Your task to perform on an android device: Open privacy settings Image 0: 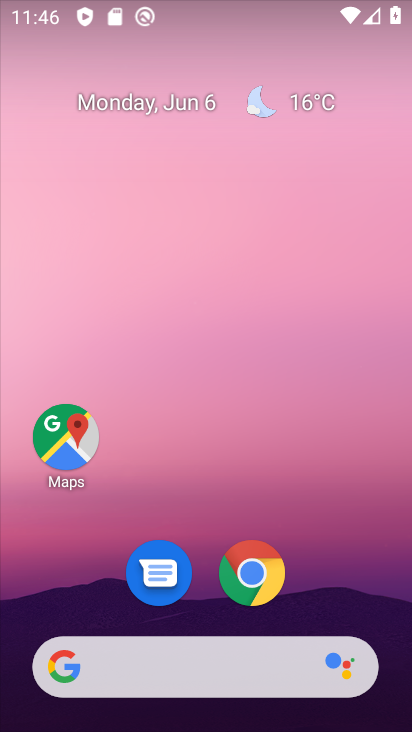
Step 0: drag from (362, 572) to (280, 76)
Your task to perform on an android device: Open privacy settings Image 1: 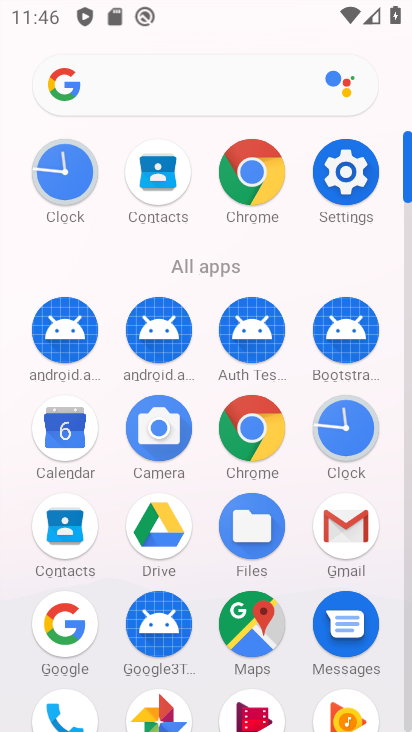
Step 1: click (347, 172)
Your task to perform on an android device: Open privacy settings Image 2: 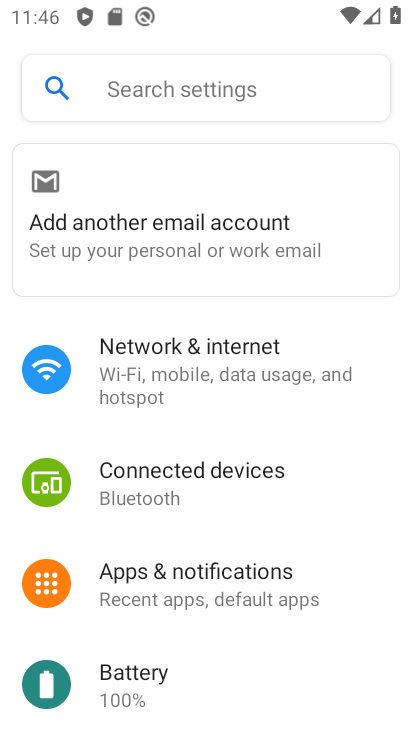
Step 2: drag from (311, 589) to (334, 261)
Your task to perform on an android device: Open privacy settings Image 3: 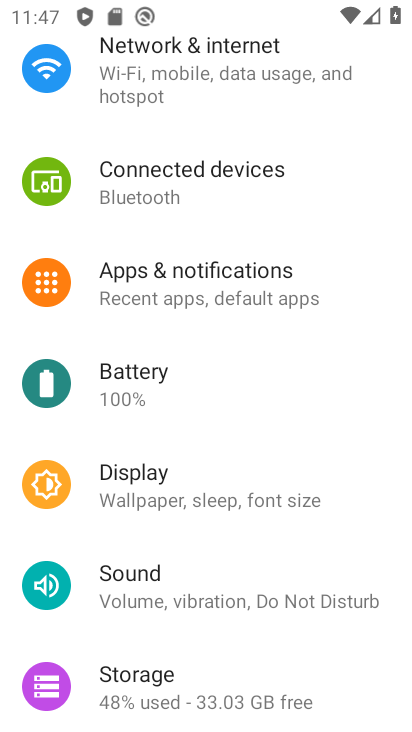
Step 3: drag from (202, 584) to (164, 333)
Your task to perform on an android device: Open privacy settings Image 4: 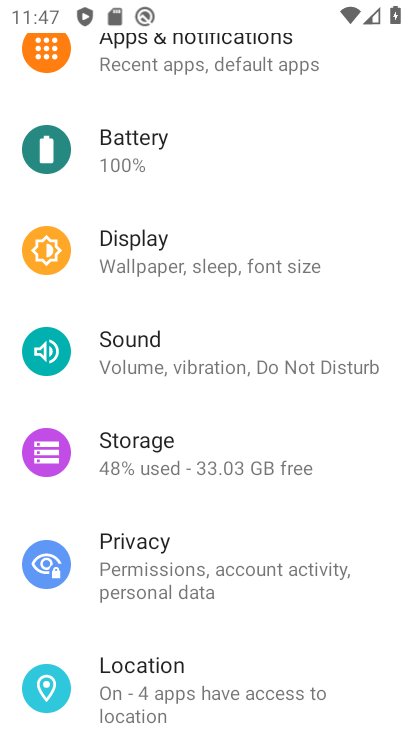
Step 4: click (195, 577)
Your task to perform on an android device: Open privacy settings Image 5: 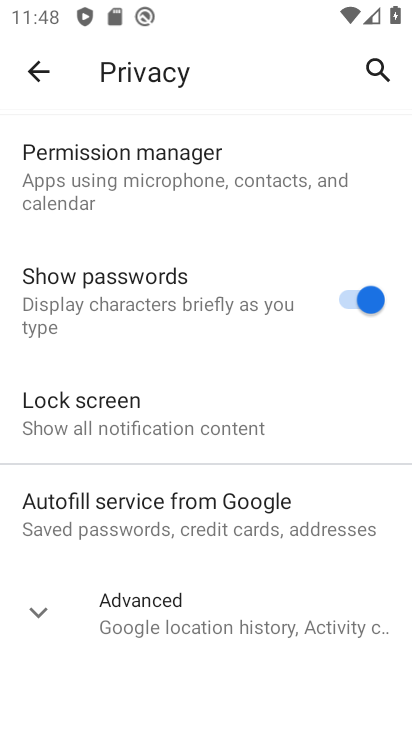
Step 5: task complete